Your task to perform on an android device: turn off sleep mode Image 0: 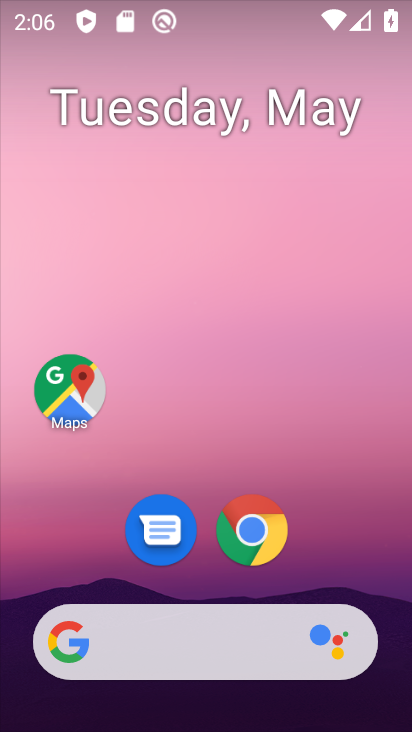
Step 0: drag from (228, 595) to (213, 5)
Your task to perform on an android device: turn off sleep mode Image 1: 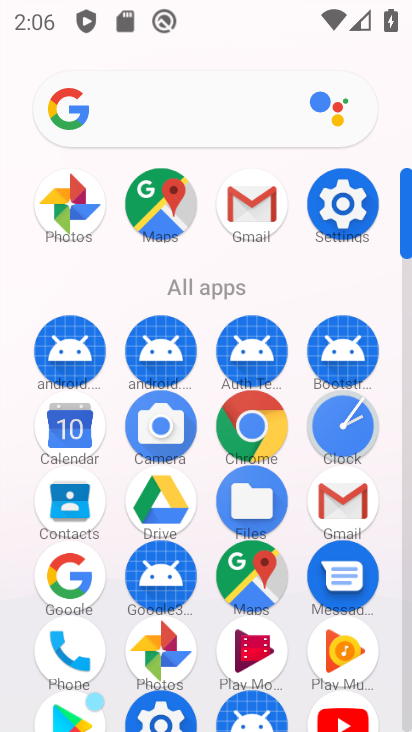
Step 1: click (348, 205)
Your task to perform on an android device: turn off sleep mode Image 2: 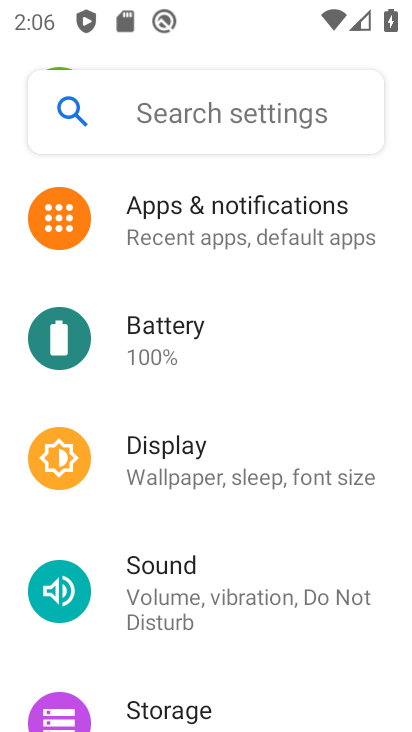
Step 2: click (219, 486)
Your task to perform on an android device: turn off sleep mode Image 3: 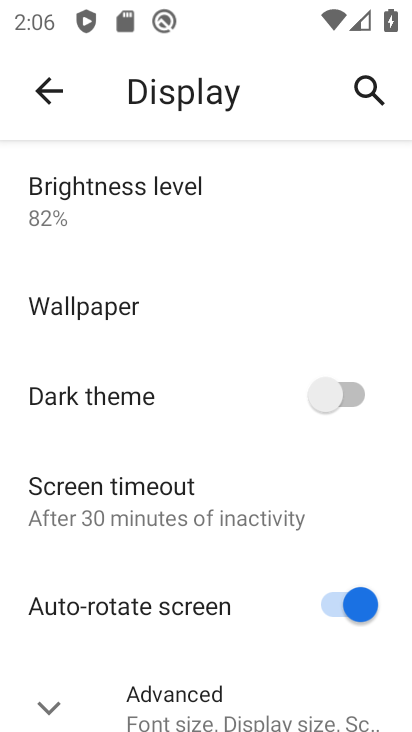
Step 3: drag from (161, 678) to (106, 362)
Your task to perform on an android device: turn off sleep mode Image 4: 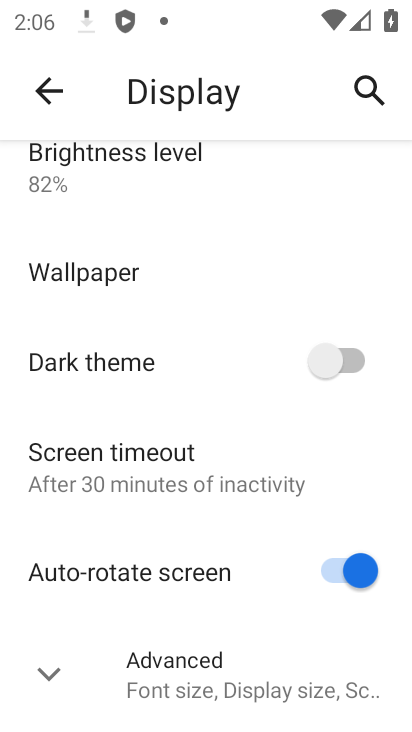
Step 4: click (138, 676)
Your task to perform on an android device: turn off sleep mode Image 5: 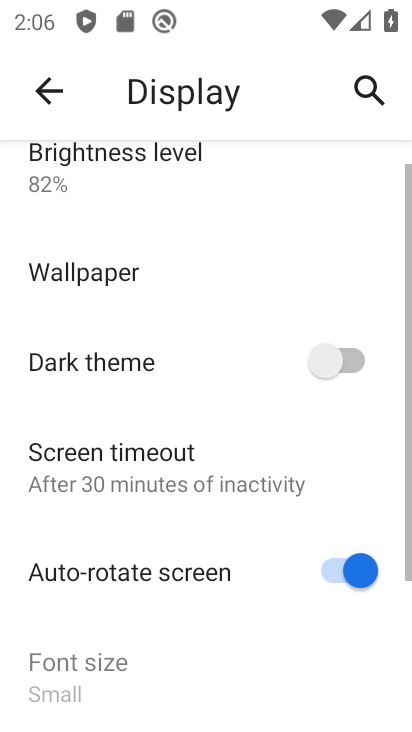
Step 5: task complete